Your task to perform on an android device: turn on sleep mode Image 0: 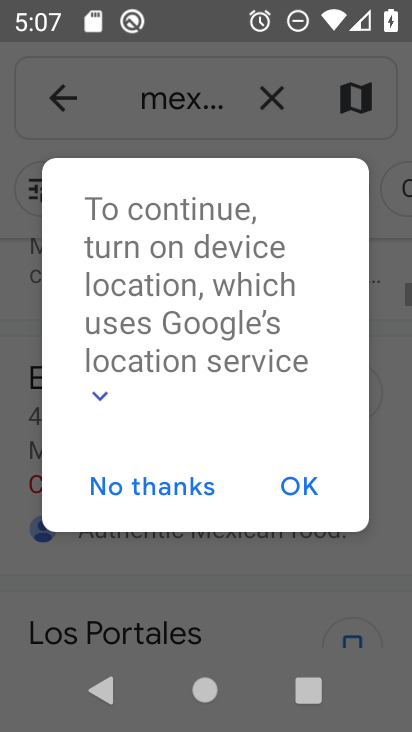
Step 0: press back button
Your task to perform on an android device: turn on sleep mode Image 1: 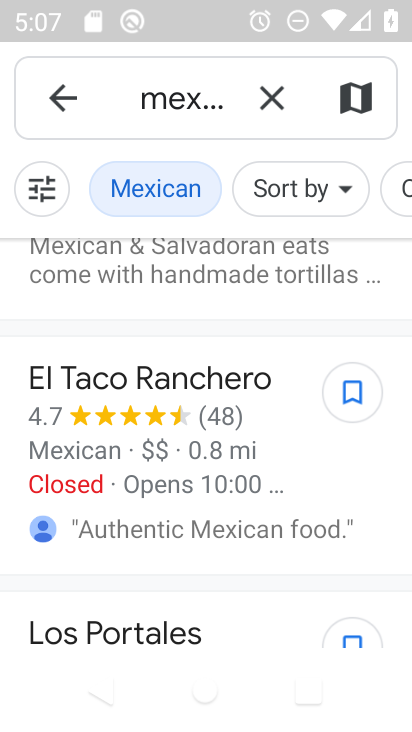
Step 1: task complete